Your task to perform on an android device: Go to settings Image 0: 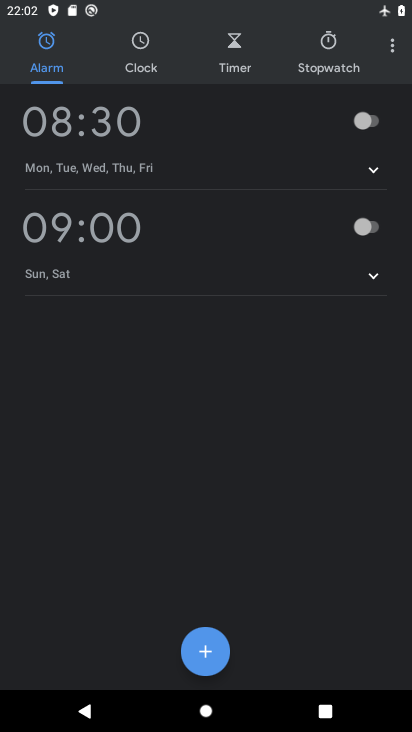
Step 0: press home button
Your task to perform on an android device: Go to settings Image 1: 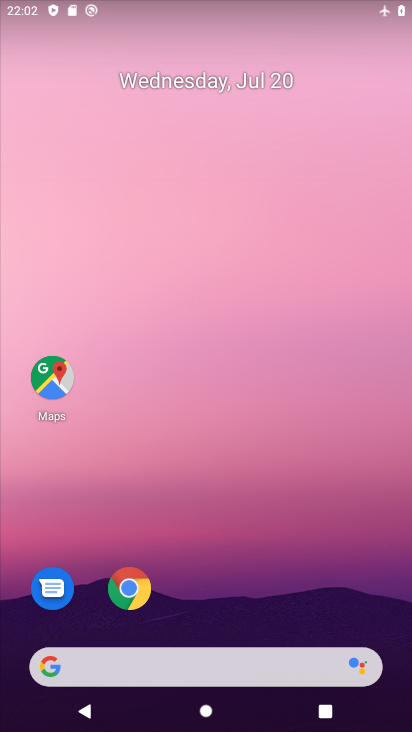
Step 1: drag from (398, 620) to (348, 68)
Your task to perform on an android device: Go to settings Image 2: 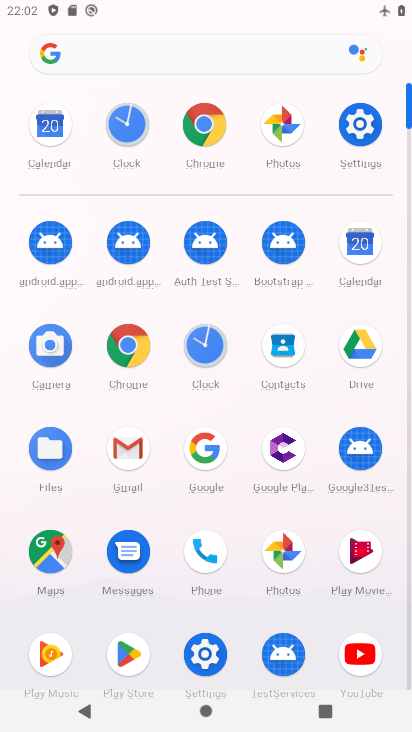
Step 2: click (206, 652)
Your task to perform on an android device: Go to settings Image 3: 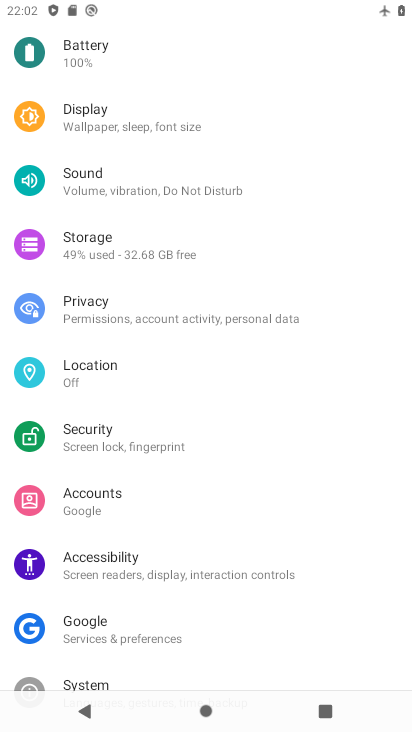
Step 3: task complete